Your task to perform on an android device: What's the weather today? Image 0: 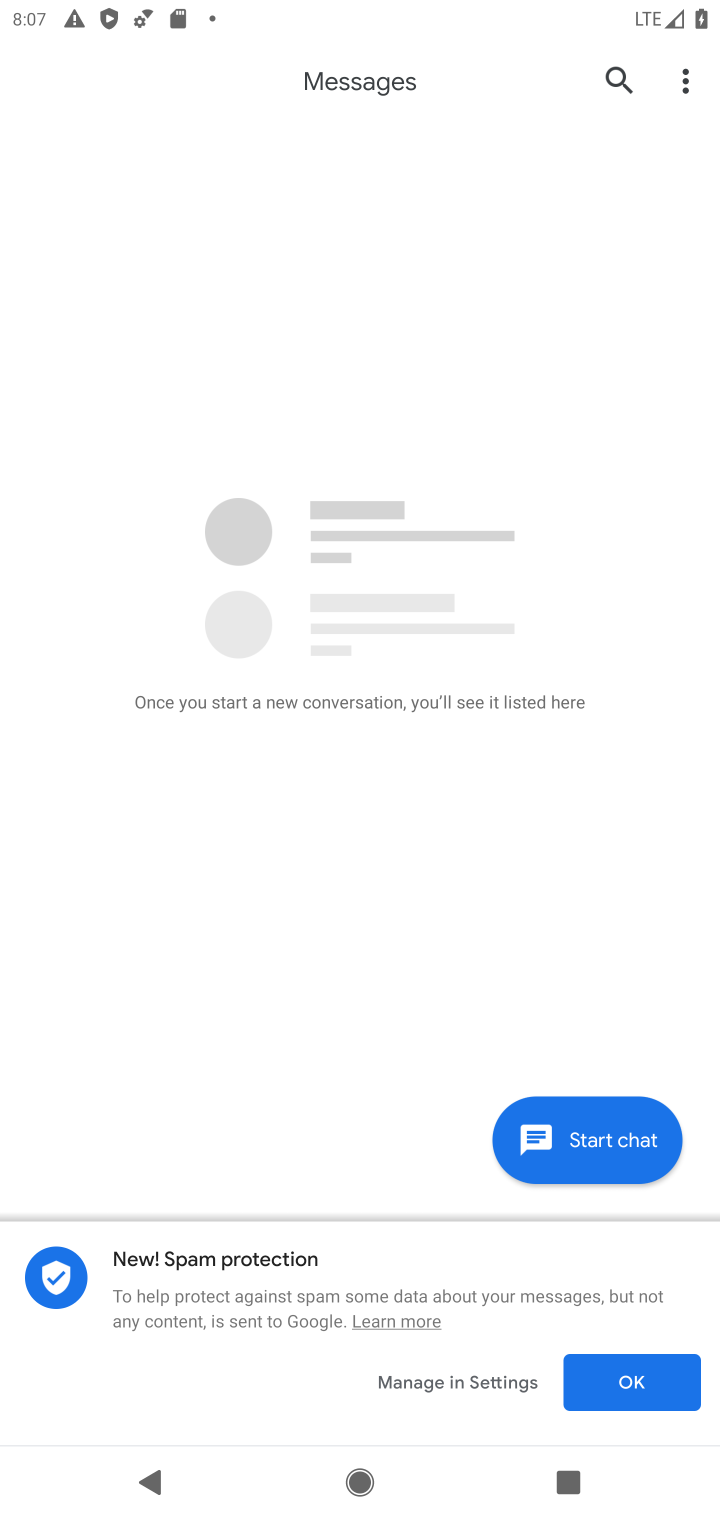
Step 0: press back button
Your task to perform on an android device: What's the weather today? Image 1: 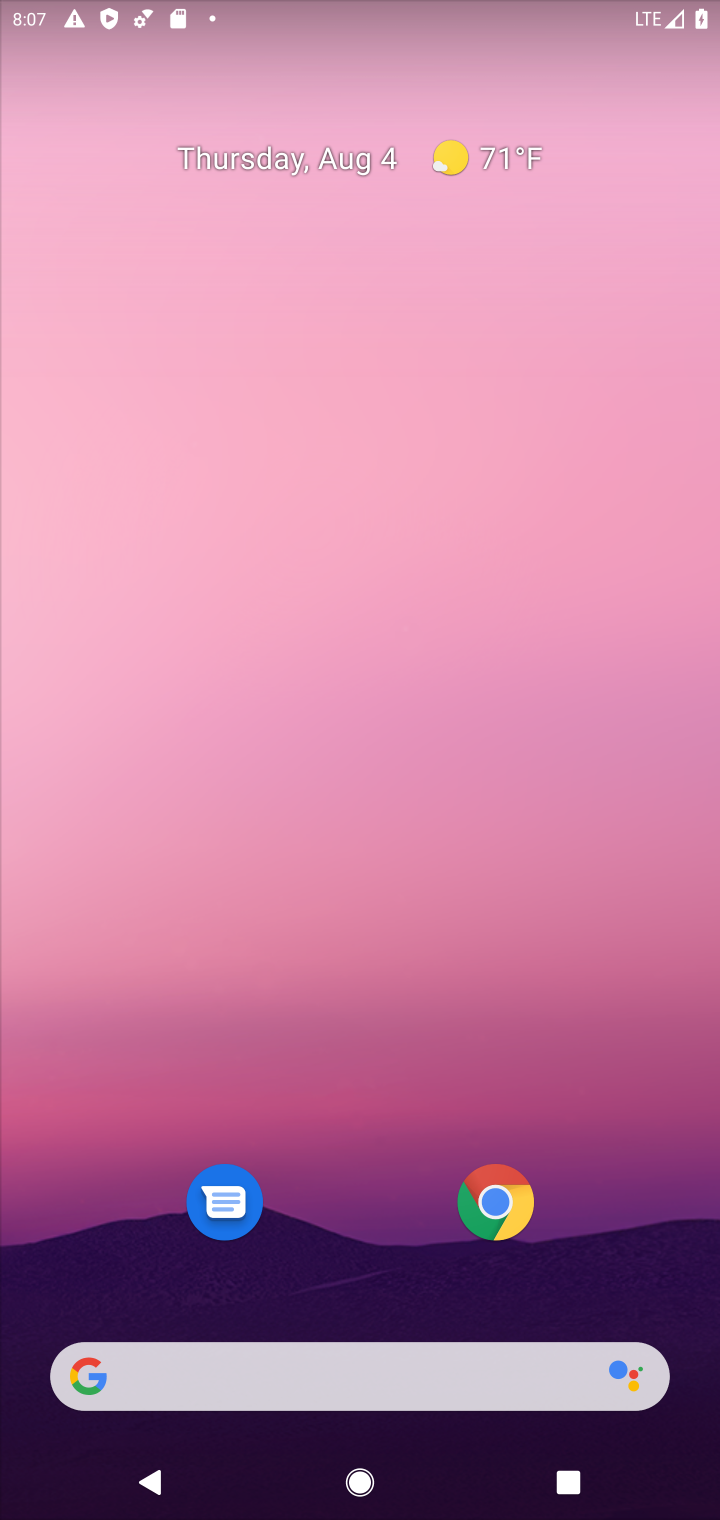
Step 1: drag from (361, 1274) to (443, 467)
Your task to perform on an android device: What's the weather today? Image 2: 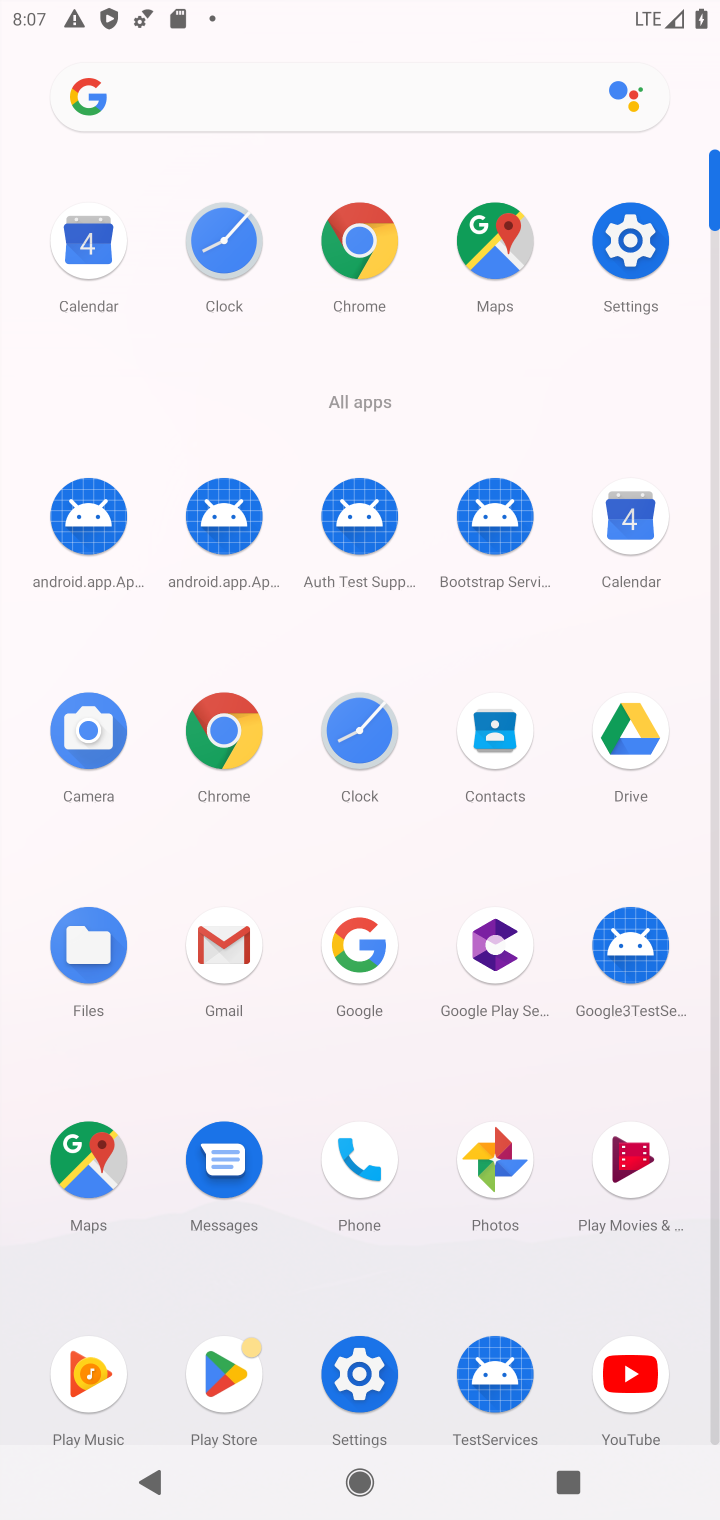
Step 2: click (336, 979)
Your task to perform on an android device: What's the weather today? Image 3: 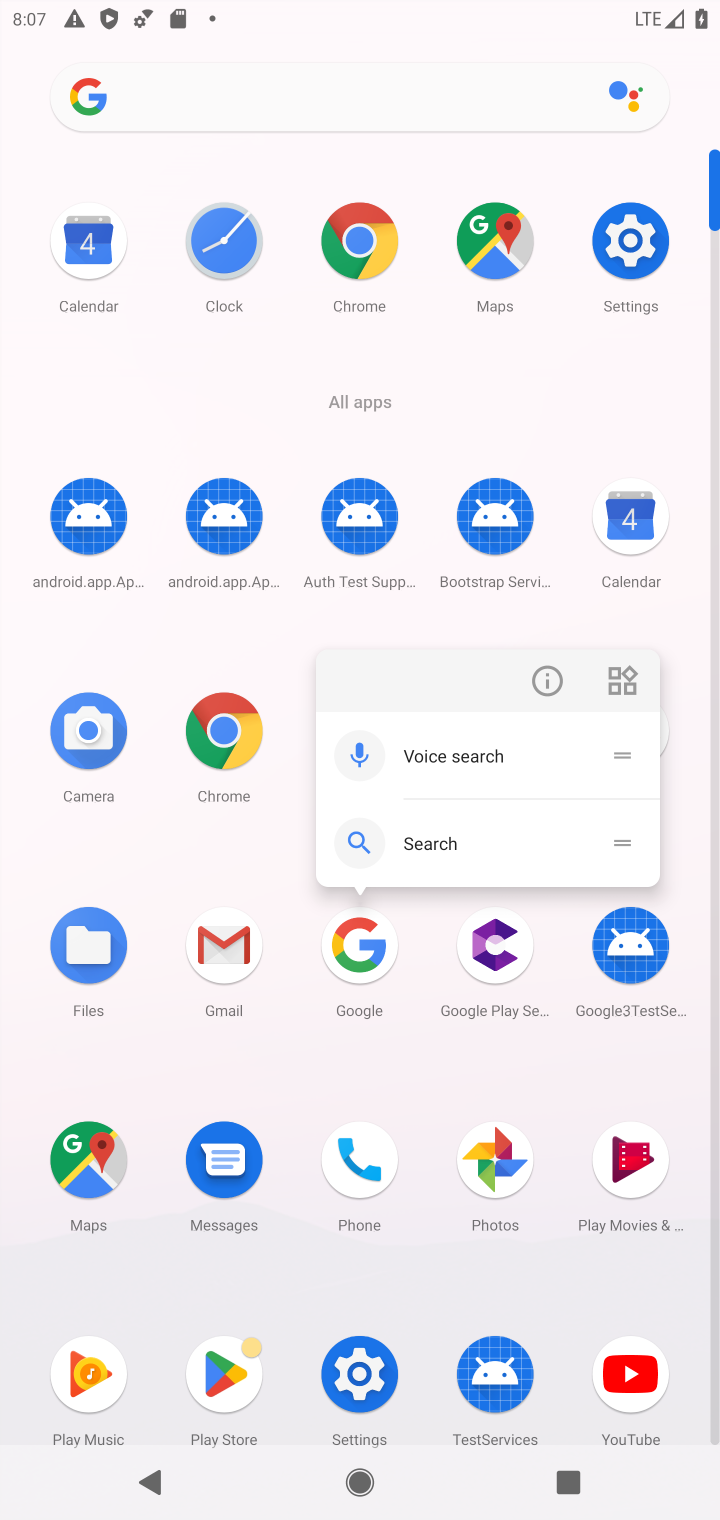
Step 3: click (336, 979)
Your task to perform on an android device: What's the weather today? Image 4: 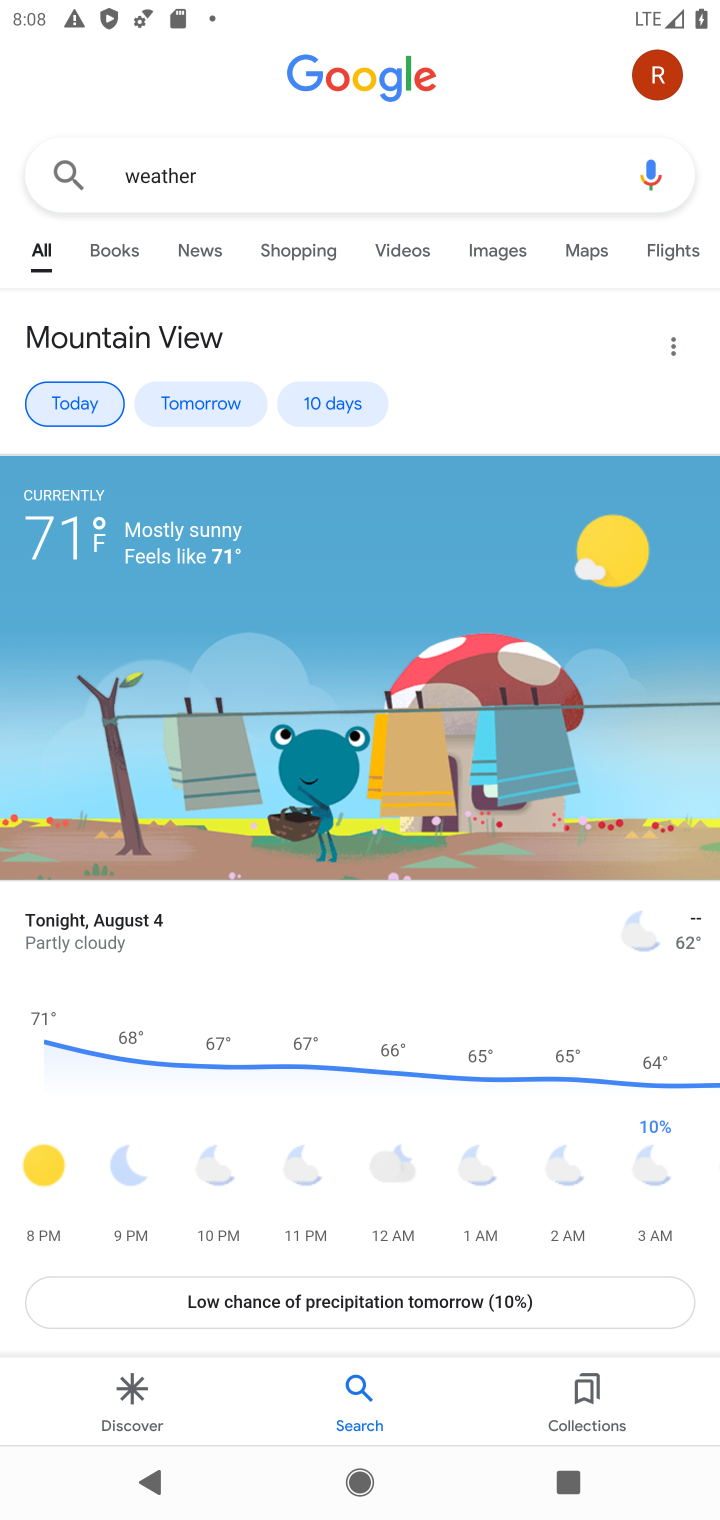
Step 4: task complete